Your task to perform on an android device: Go to Yahoo.com Image 0: 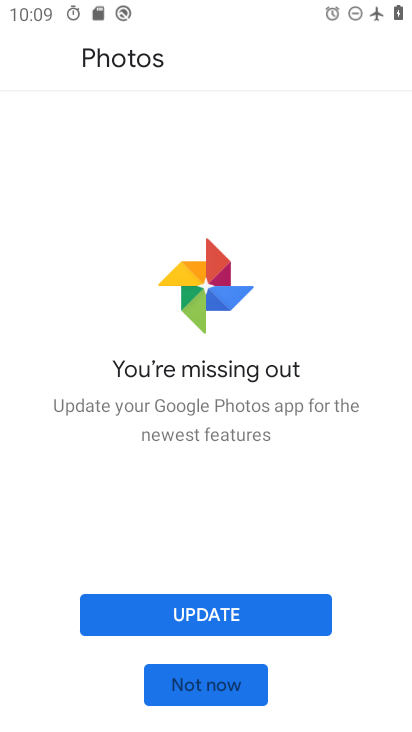
Step 0: press home button
Your task to perform on an android device: Go to Yahoo.com Image 1: 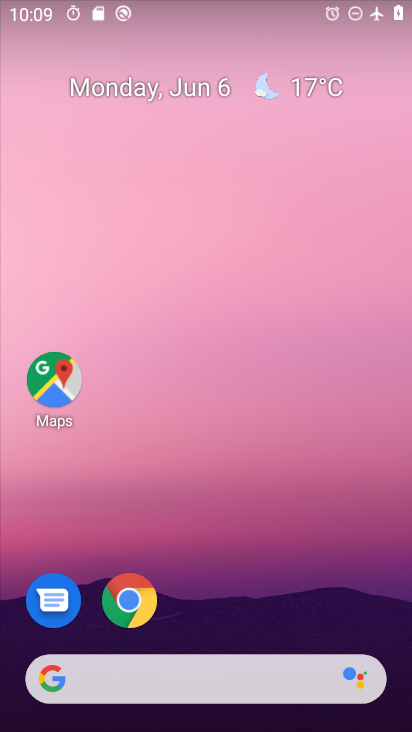
Step 1: drag from (327, 535) to (240, 117)
Your task to perform on an android device: Go to Yahoo.com Image 2: 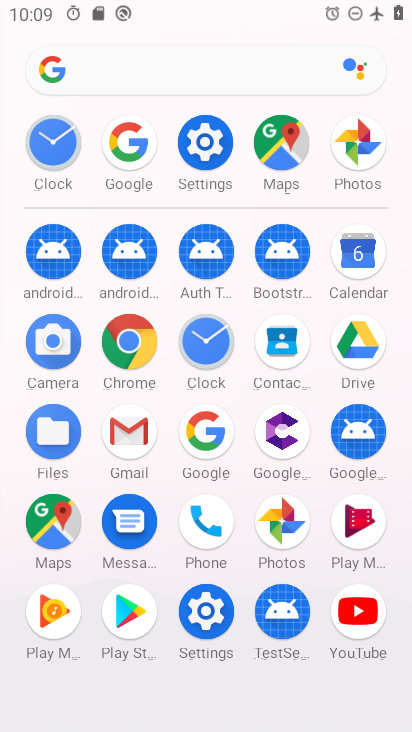
Step 2: click (134, 353)
Your task to perform on an android device: Go to Yahoo.com Image 3: 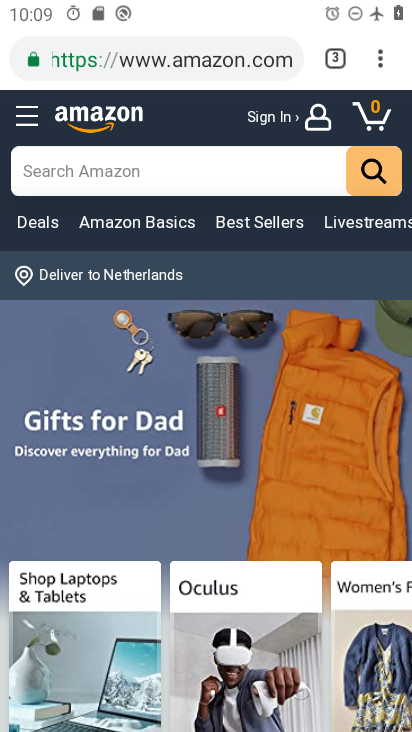
Step 3: click (376, 64)
Your task to perform on an android device: Go to Yahoo.com Image 4: 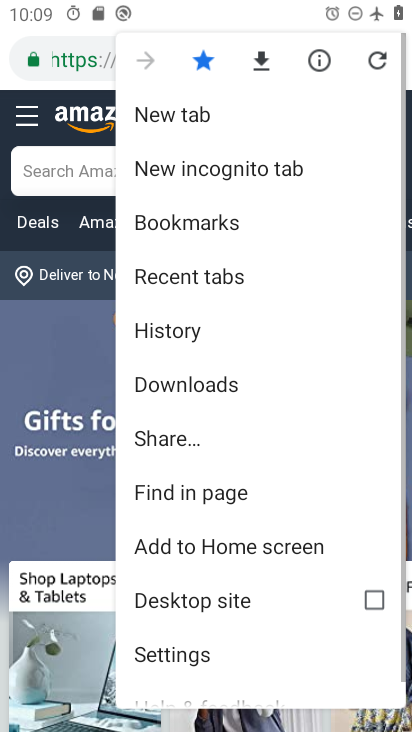
Step 4: click (266, 104)
Your task to perform on an android device: Go to Yahoo.com Image 5: 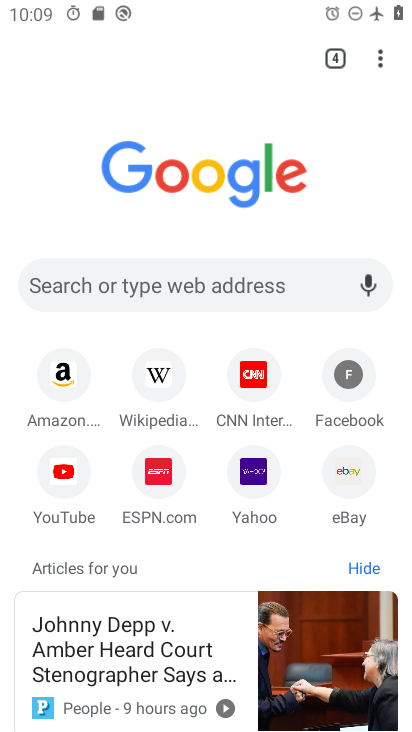
Step 5: click (250, 476)
Your task to perform on an android device: Go to Yahoo.com Image 6: 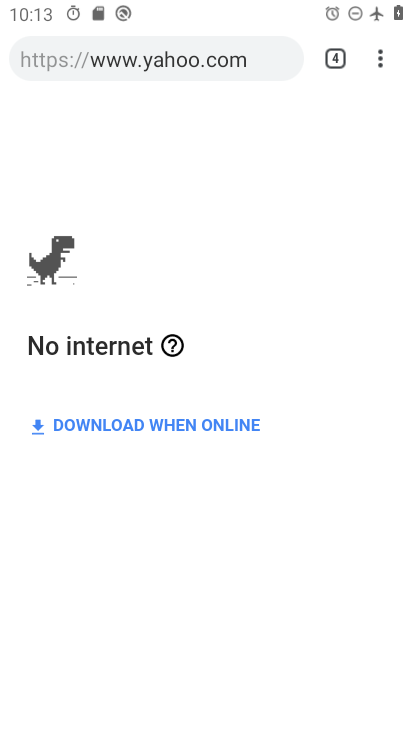
Step 6: task complete